Your task to perform on an android device: check data usage Image 0: 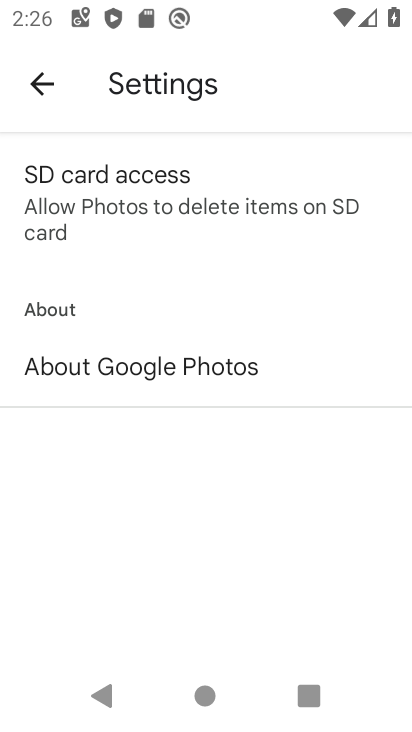
Step 0: press home button
Your task to perform on an android device: check data usage Image 1: 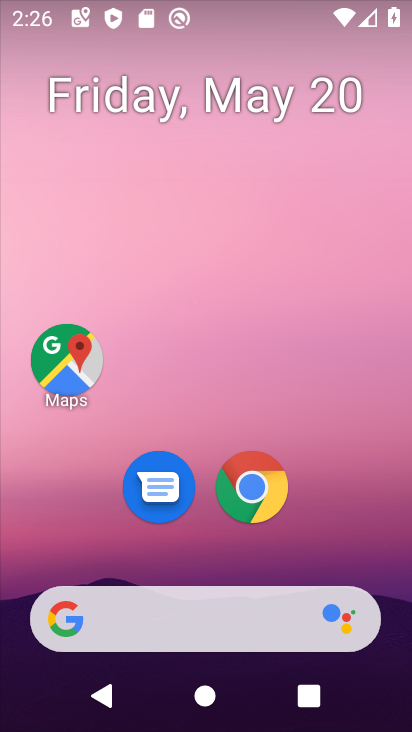
Step 1: drag from (327, 507) to (372, 3)
Your task to perform on an android device: check data usage Image 2: 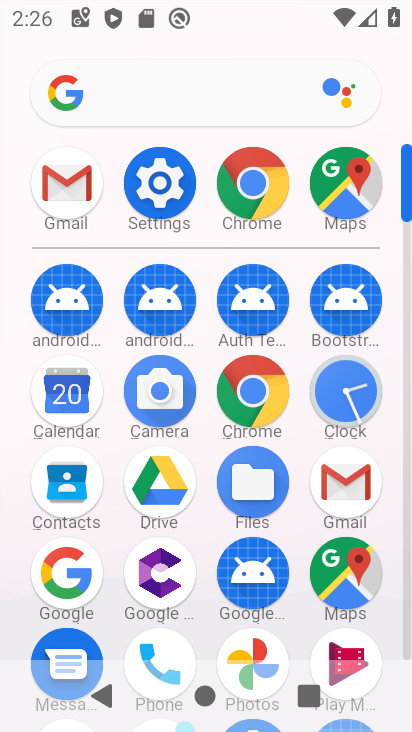
Step 2: click (119, 229)
Your task to perform on an android device: check data usage Image 3: 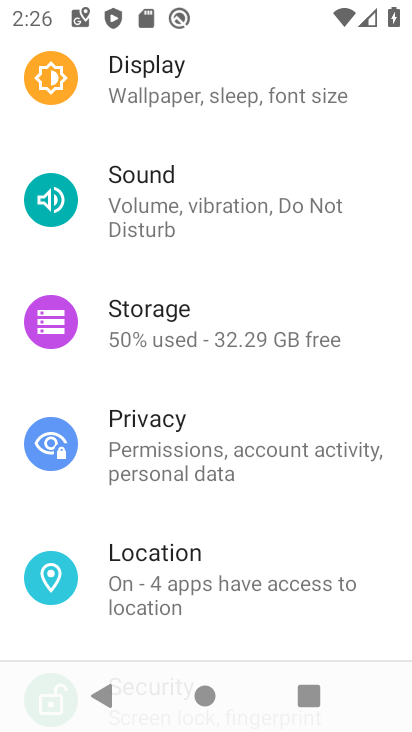
Step 3: drag from (246, 216) to (217, 668)
Your task to perform on an android device: check data usage Image 4: 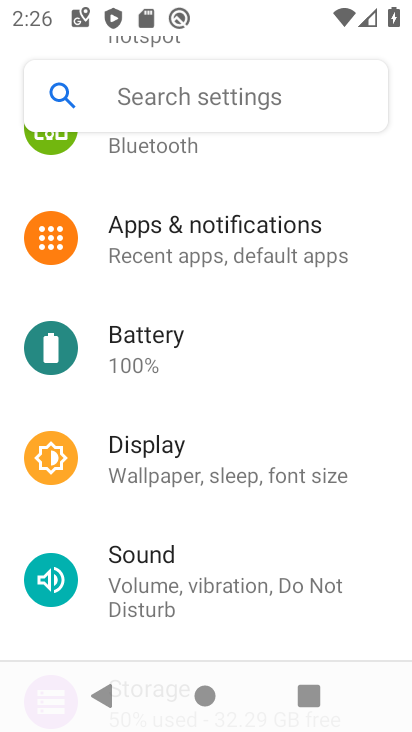
Step 4: drag from (260, 166) to (237, 605)
Your task to perform on an android device: check data usage Image 5: 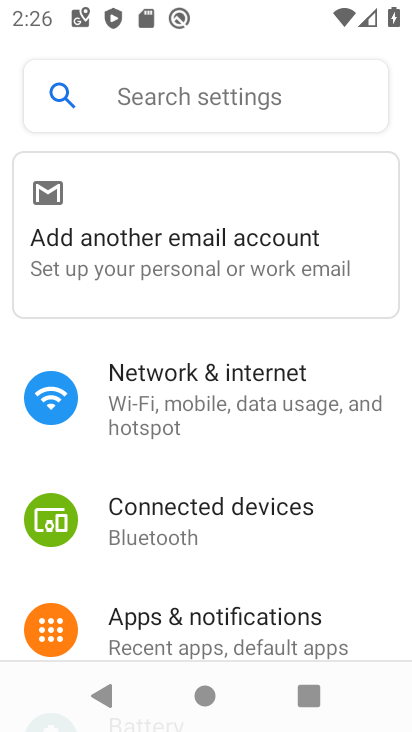
Step 5: click (192, 412)
Your task to perform on an android device: check data usage Image 6: 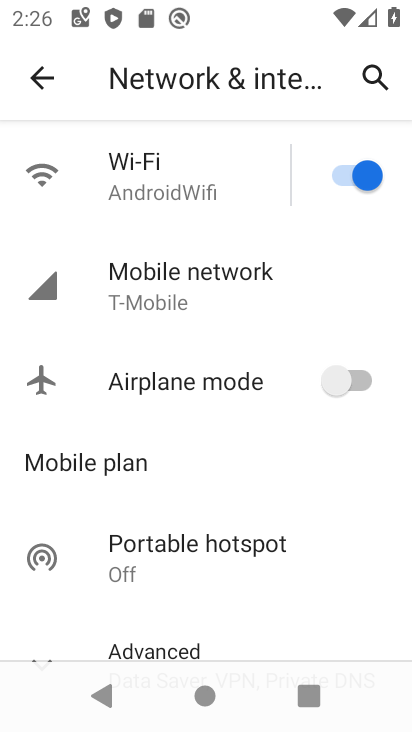
Step 6: click (194, 279)
Your task to perform on an android device: check data usage Image 7: 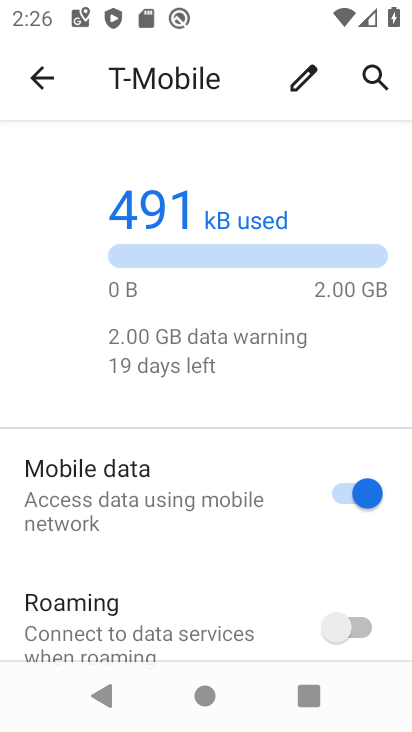
Step 7: task complete